Your task to perform on an android device: Open calendar and show me the third week of next month Image 0: 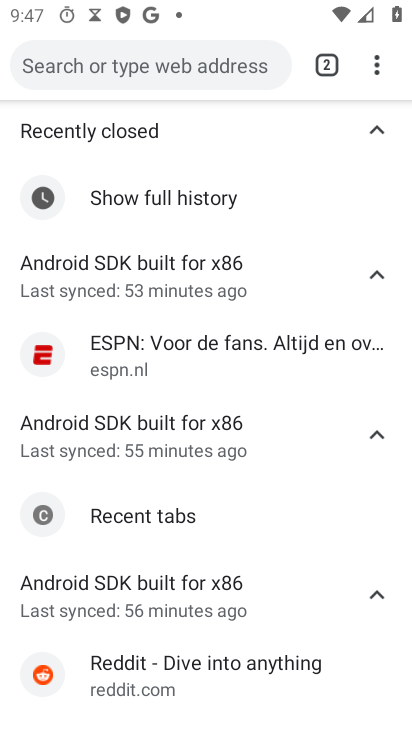
Step 0: press home button
Your task to perform on an android device: Open calendar and show me the third week of next month Image 1: 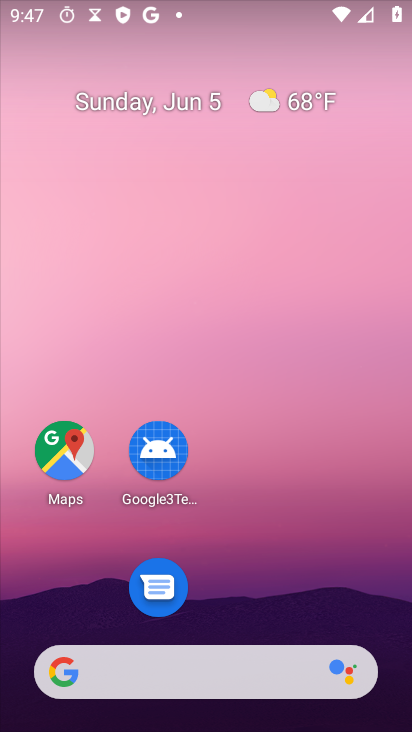
Step 1: drag from (276, 594) to (38, 241)
Your task to perform on an android device: Open calendar and show me the third week of next month Image 2: 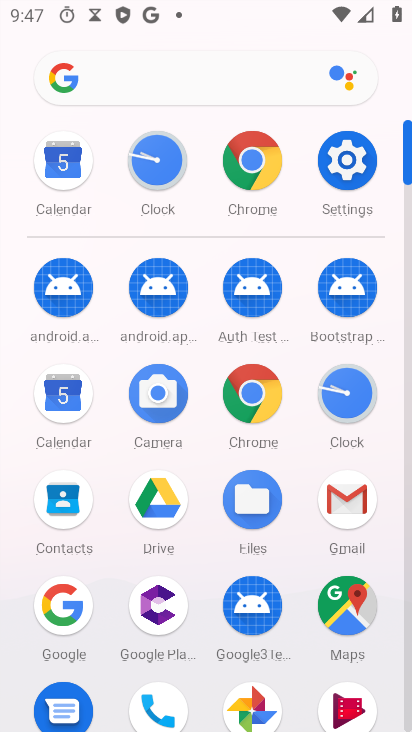
Step 2: click (57, 393)
Your task to perform on an android device: Open calendar and show me the third week of next month Image 3: 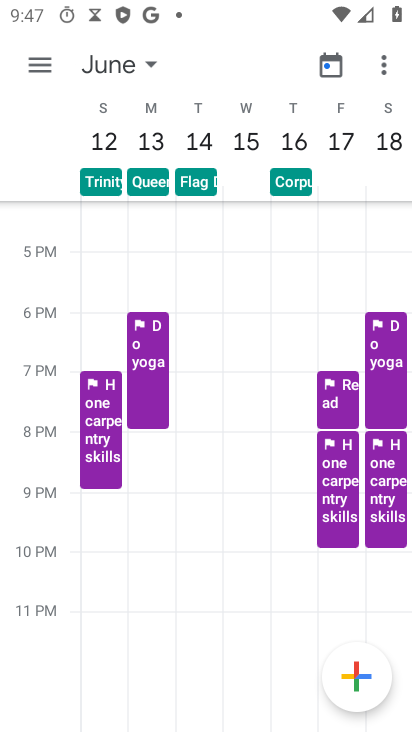
Step 3: click (57, 393)
Your task to perform on an android device: Open calendar and show me the third week of next month Image 4: 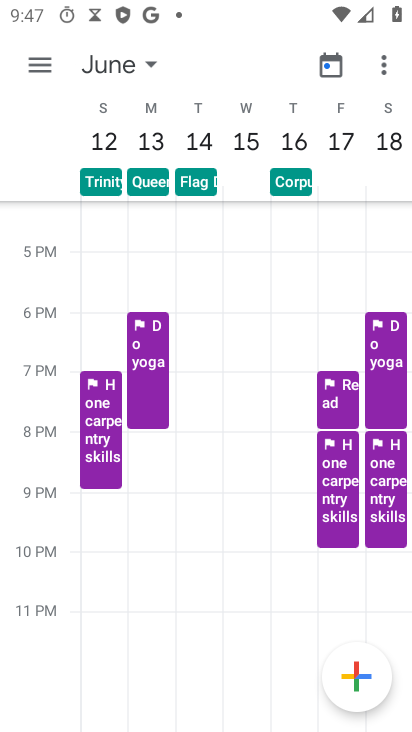
Step 4: click (114, 66)
Your task to perform on an android device: Open calendar and show me the third week of next month Image 5: 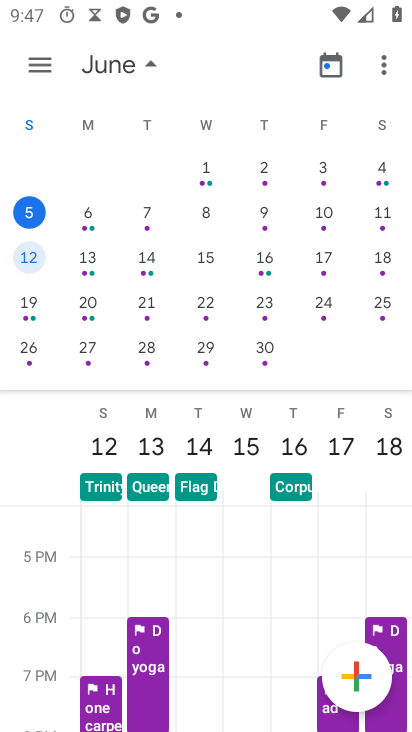
Step 5: drag from (376, 363) to (140, 238)
Your task to perform on an android device: Open calendar and show me the third week of next month Image 6: 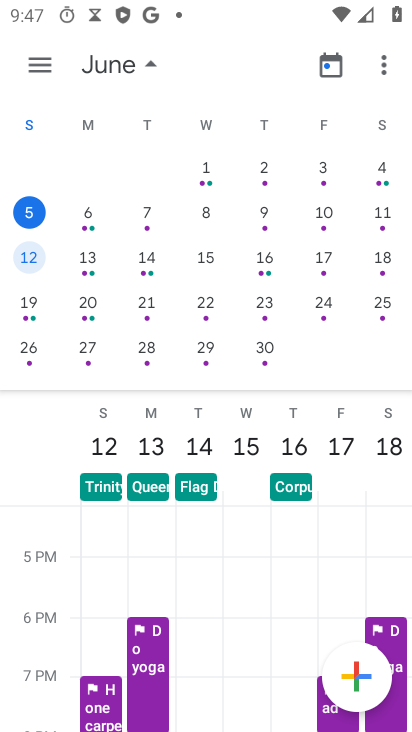
Step 6: drag from (334, 302) to (34, 374)
Your task to perform on an android device: Open calendar and show me the third week of next month Image 7: 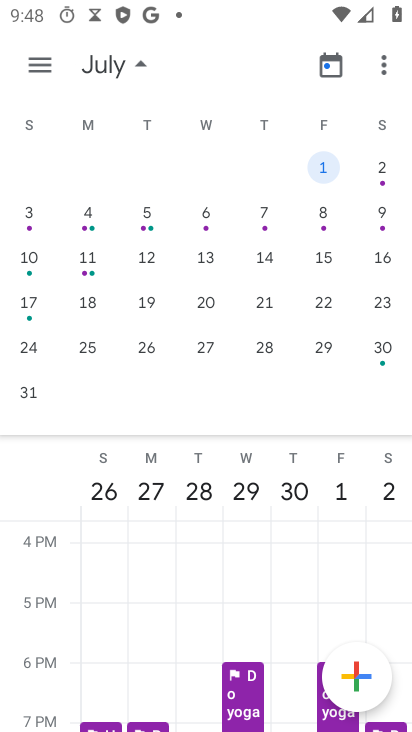
Step 7: click (204, 248)
Your task to perform on an android device: Open calendar and show me the third week of next month Image 8: 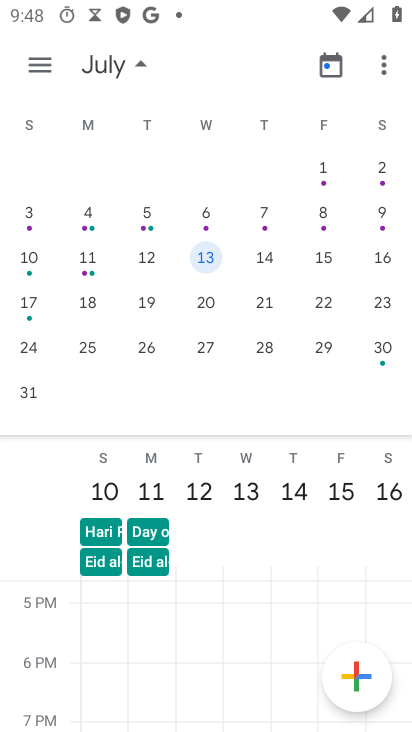
Step 8: task complete